Your task to perform on an android device: create a new album in the google photos Image 0: 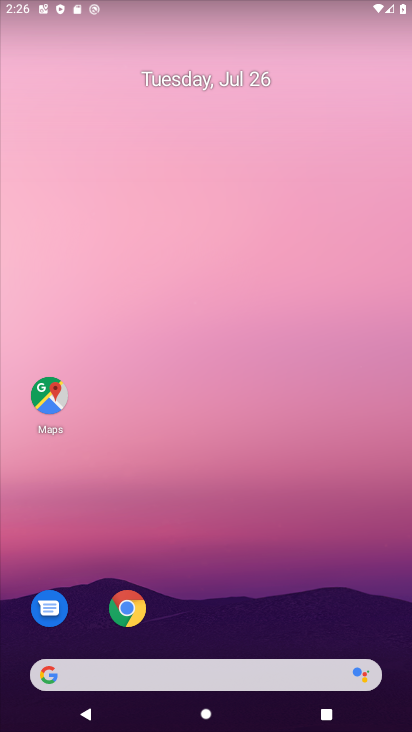
Step 0: drag from (279, 629) to (247, 64)
Your task to perform on an android device: create a new album in the google photos Image 1: 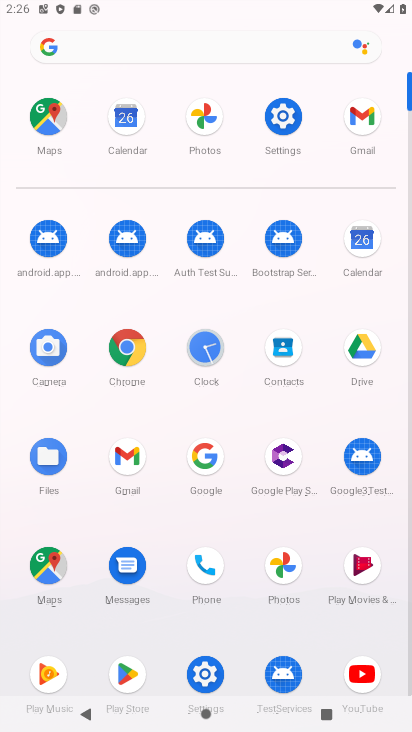
Step 1: click (208, 127)
Your task to perform on an android device: create a new album in the google photos Image 2: 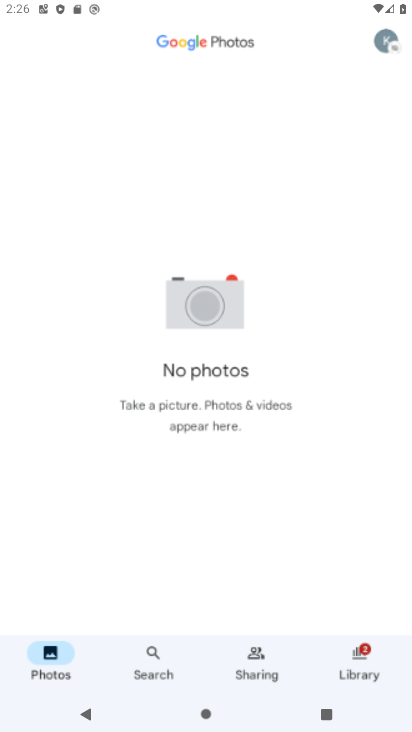
Step 2: task complete